Your task to perform on an android device: add a contact Image 0: 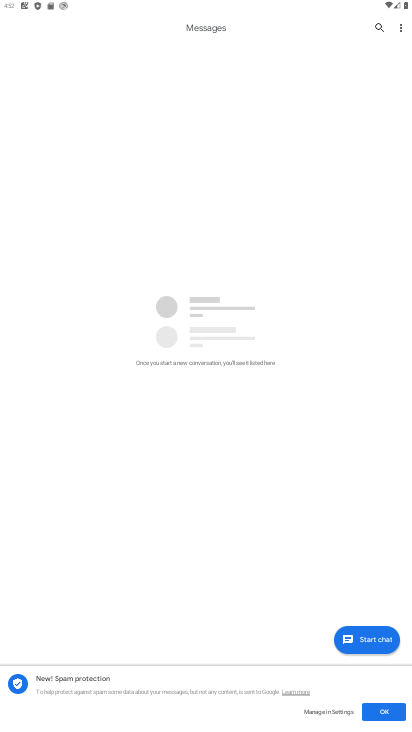
Step 0: press home button
Your task to perform on an android device: add a contact Image 1: 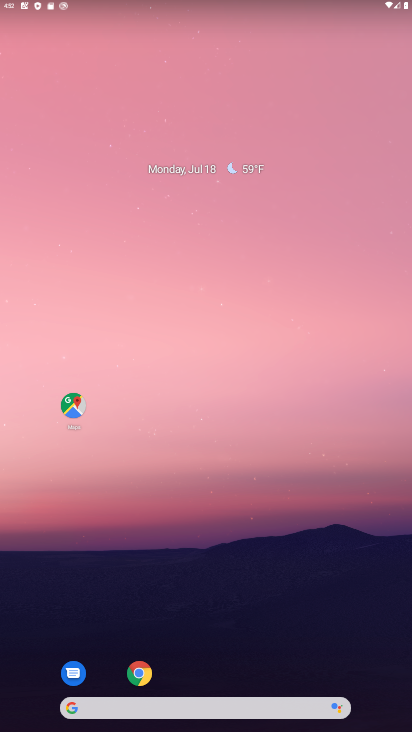
Step 1: drag from (314, 636) to (181, 172)
Your task to perform on an android device: add a contact Image 2: 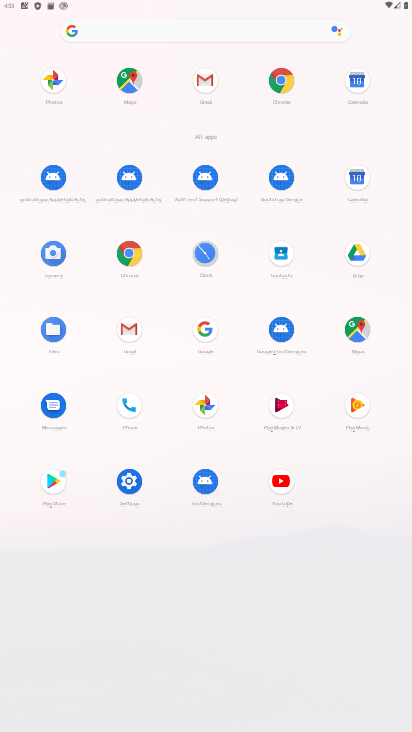
Step 2: click (135, 417)
Your task to perform on an android device: add a contact Image 3: 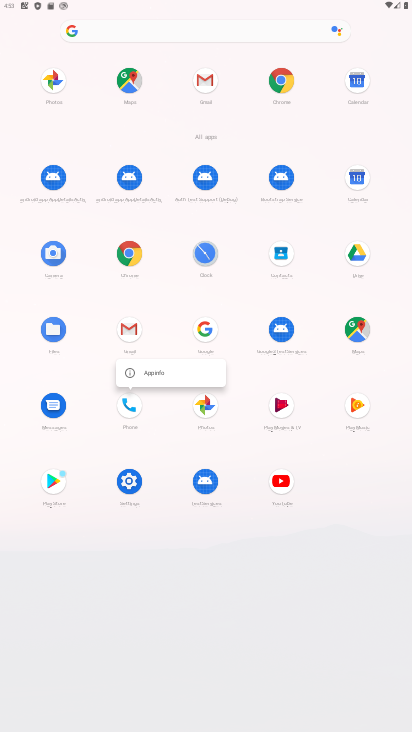
Step 3: click (130, 409)
Your task to perform on an android device: add a contact Image 4: 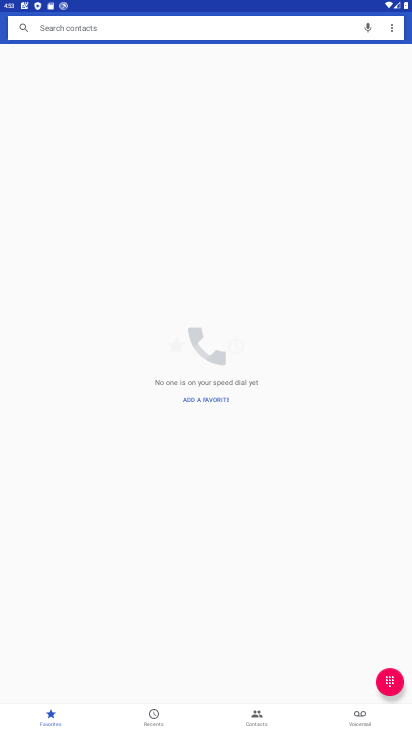
Step 4: click (246, 722)
Your task to perform on an android device: add a contact Image 5: 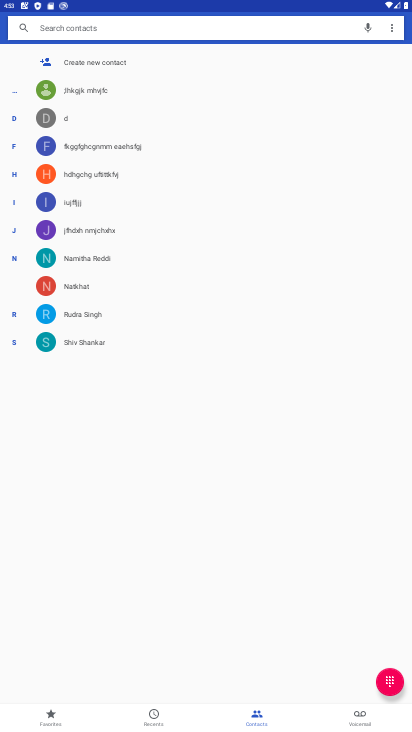
Step 5: click (61, 66)
Your task to perform on an android device: add a contact Image 6: 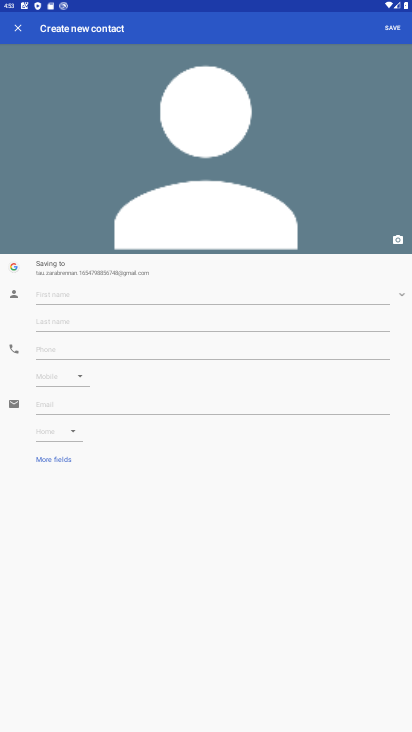
Step 6: click (47, 293)
Your task to perform on an android device: add a contact Image 7: 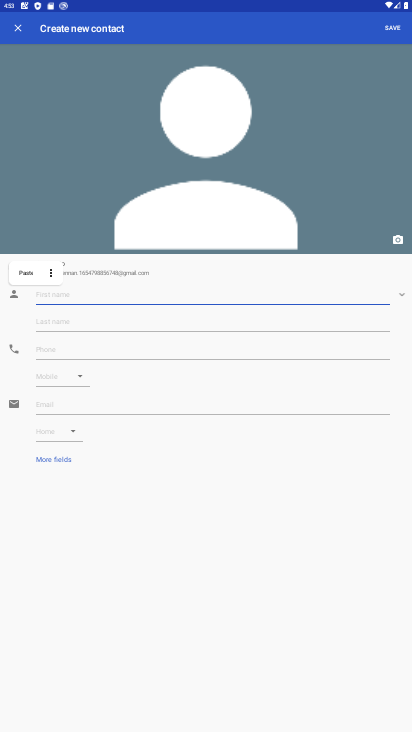
Step 7: type "fgggg"
Your task to perform on an android device: add a contact Image 8: 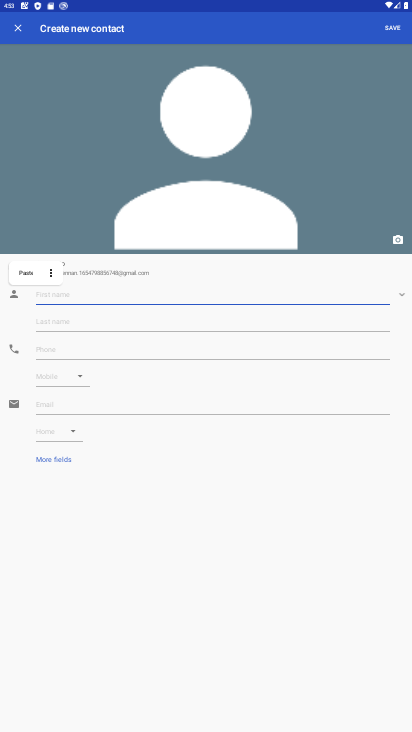
Step 8: click (71, 348)
Your task to perform on an android device: add a contact Image 9: 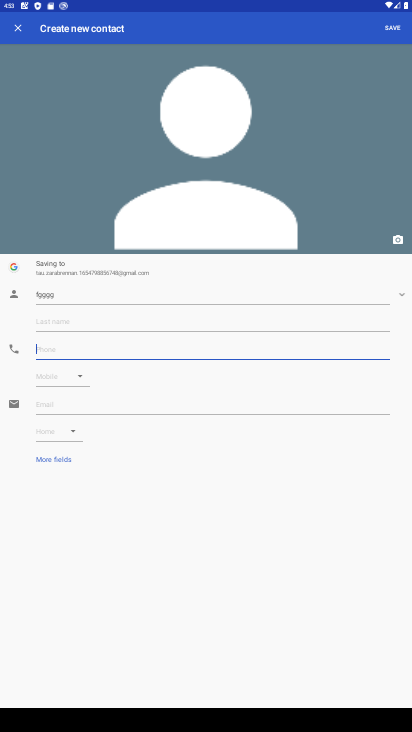
Step 9: click (69, 345)
Your task to perform on an android device: add a contact Image 10: 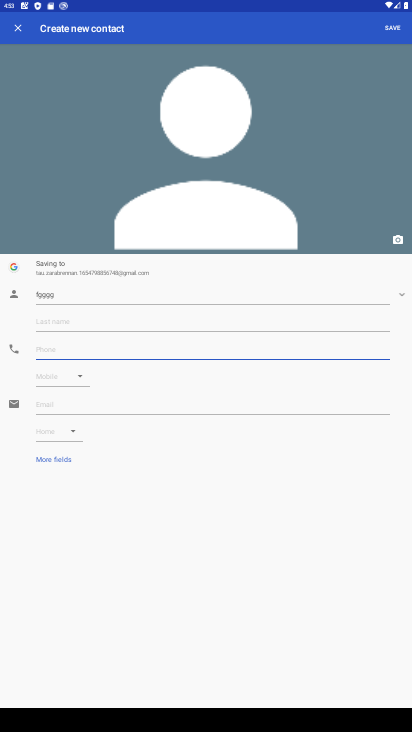
Step 10: click (70, 356)
Your task to perform on an android device: add a contact Image 11: 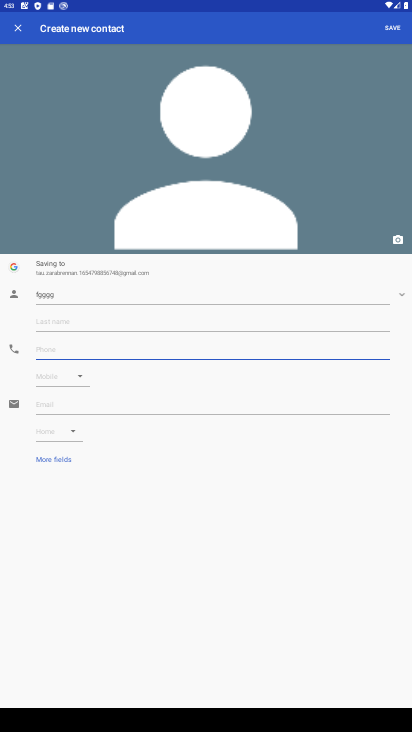
Step 11: type "45677765"
Your task to perform on an android device: add a contact Image 12: 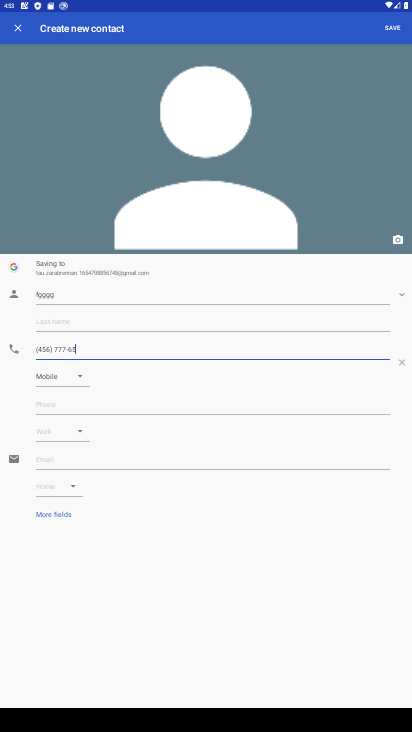
Step 12: click (390, 27)
Your task to perform on an android device: add a contact Image 13: 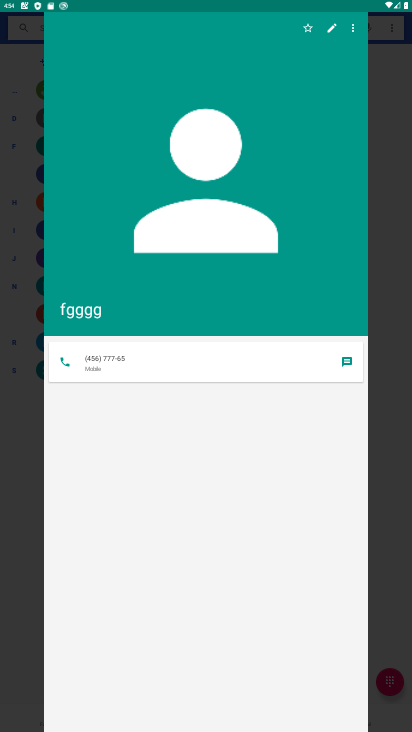
Step 13: task complete